Your task to perform on an android device: Go to battery settings Image 0: 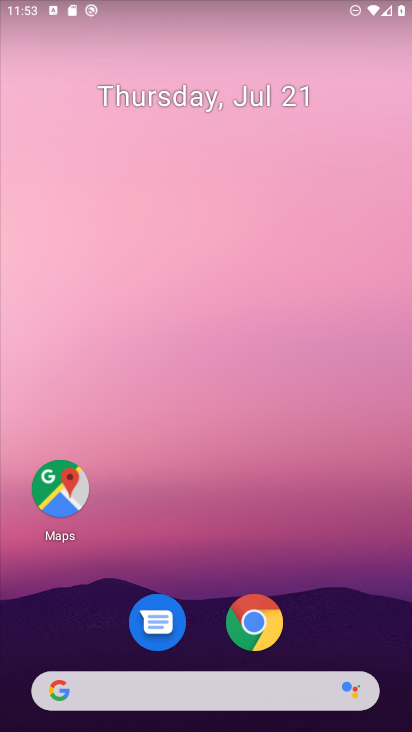
Step 0: drag from (134, 722) to (132, 20)
Your task to perform on an android device: Go to battery settings Image 1: 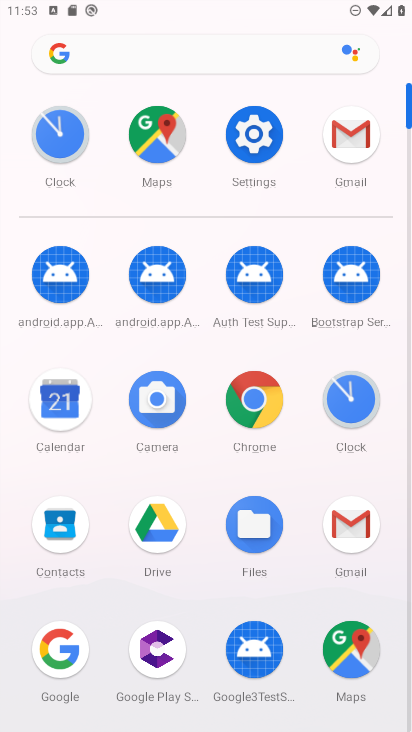
Step 1: click (273, 134)
Your task to perform on an android device: Go to battery settings Image 2: 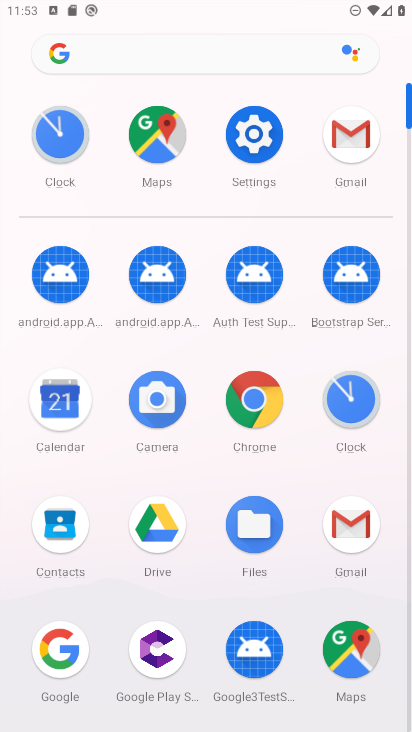
Step 2: click (273, 134)
Your task to perform on an android device: Go to battery settings Image 3: 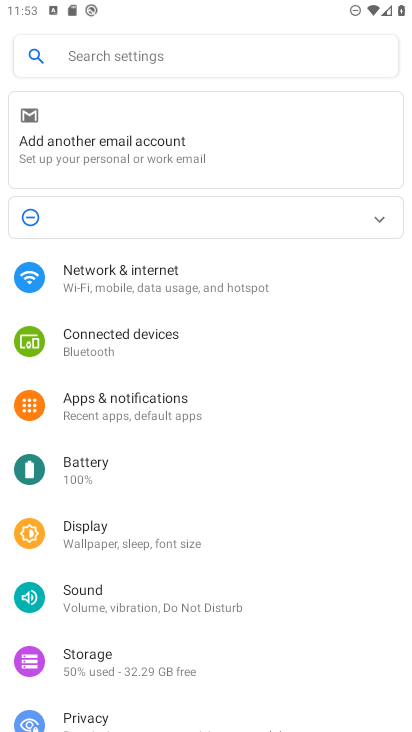
Step 3: click (93, 465)
Your task to perform on an android device: Go to battery settings Image 4: 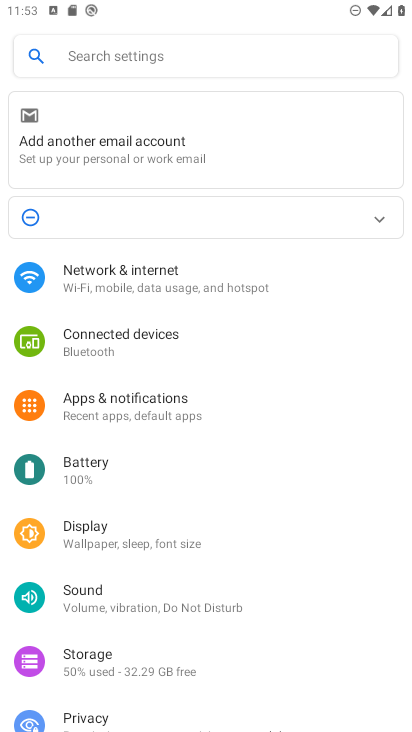
Step 4: click (93, 465)
Your task to perform on an android device: Go to battery settings Image 5: 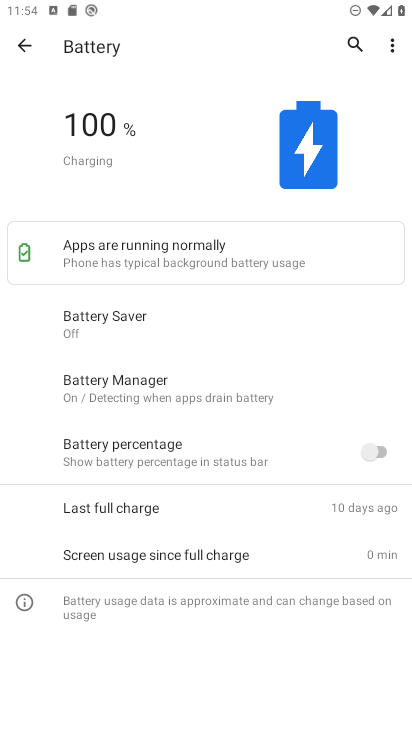
Step 5: task complete